Your task to perform on an android device: check android version Image 0: 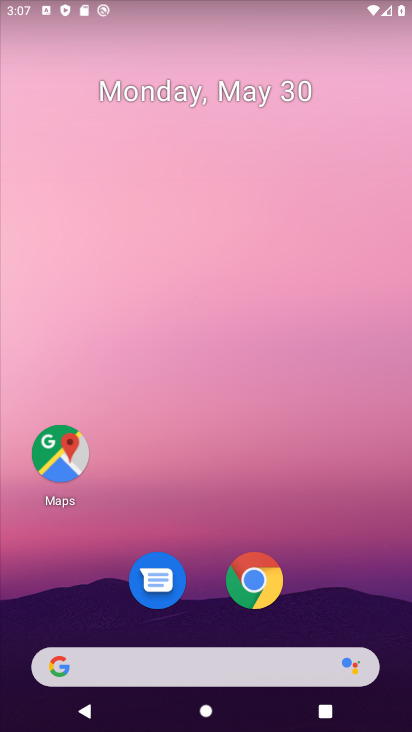
Step 0: drag from (324, 594) to (335, 99)
Your task to perform on an android device: check android version Image 1: 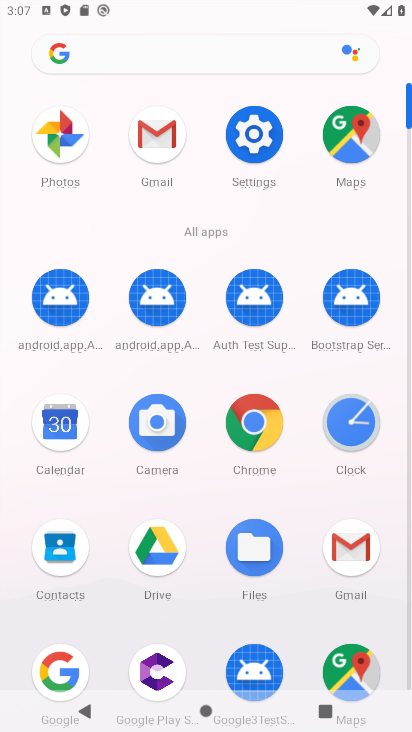
Step 1: click (257, 137)
Your task to perform on an android device: check android version Image 2: 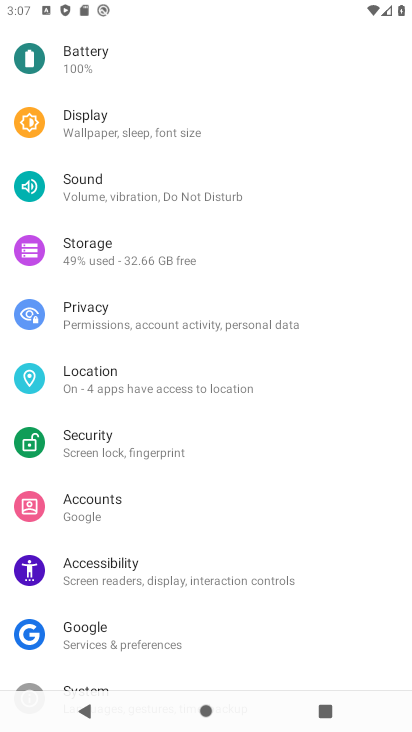
Step 2: drag from (115, 636) to (226, 119)
Your task to perform on an android device: check android version Image 3: 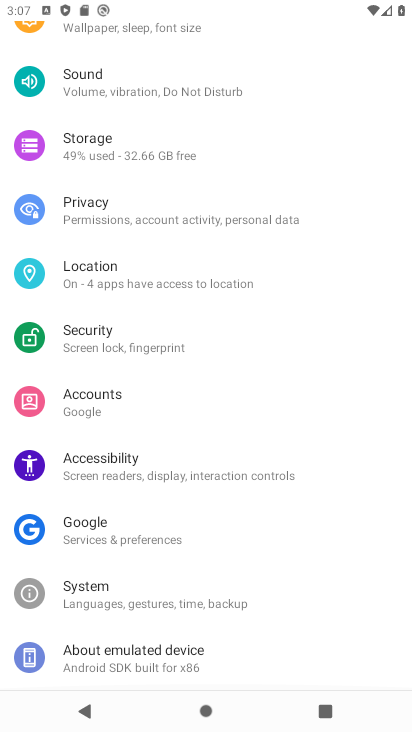
Step 3: click (102, 659)
Your task to perform on an android device: check android version Image 4: 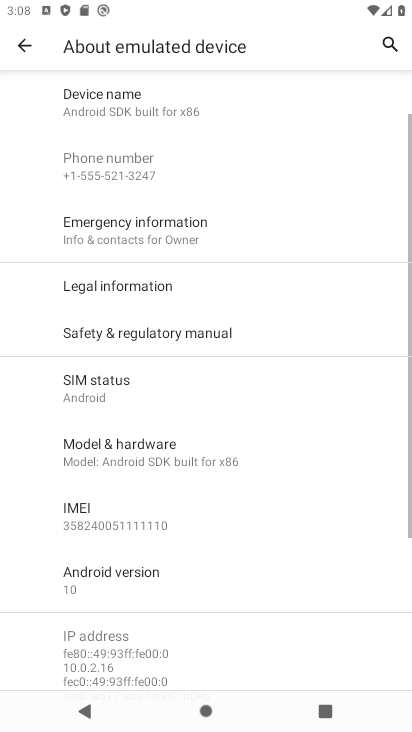
Step 4: drag from (164, 612) to (226, 377)
Your task to perform on an android device: check android version Image 5: 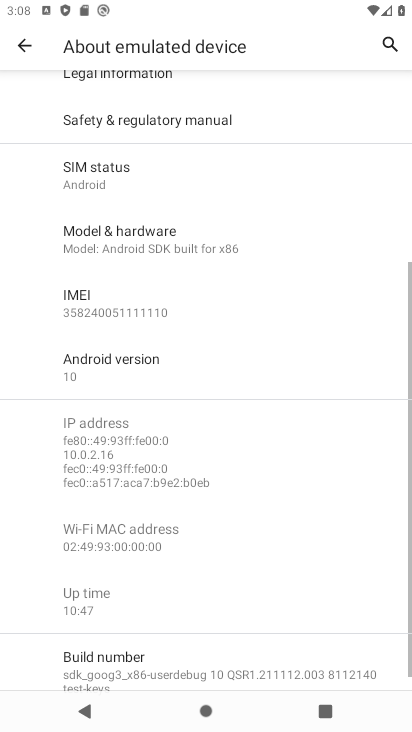
Step 5: click (171, 360)
Your task to perform on an android device: check android version Image 6: 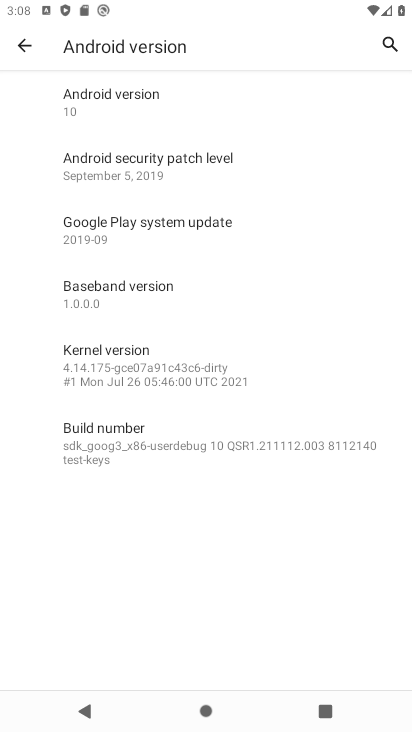
Step 6: task complete